Your task to perform on an android device: Open settings Image 0: 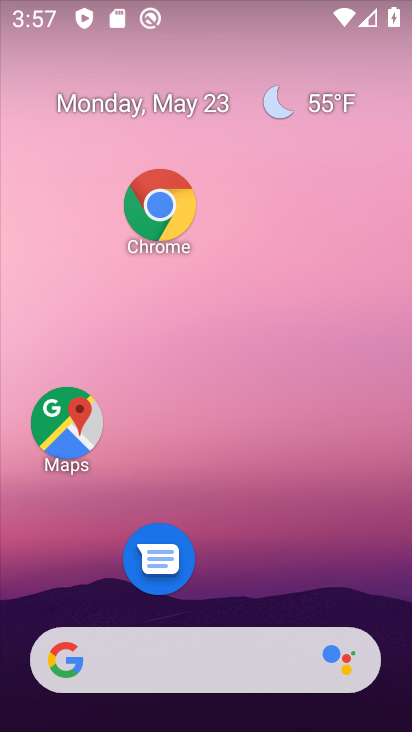
Step 0: drag from (286, 660) to (185, 2)
Your task to perform on an android device: Open settings Image 1: 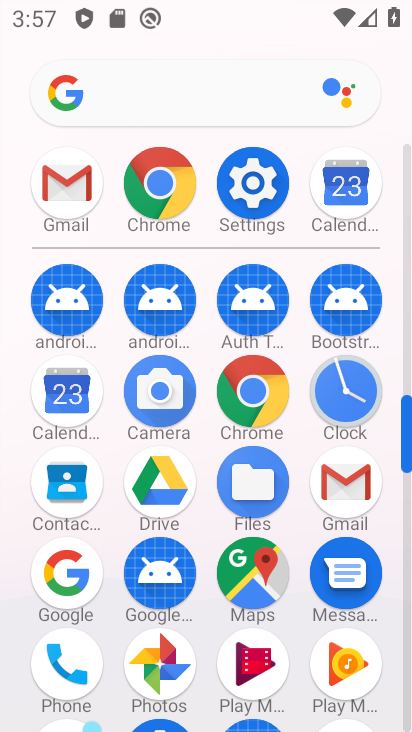
Step 1: click (250, 177)
Your task to perform on an android device: Open settings Image 2: 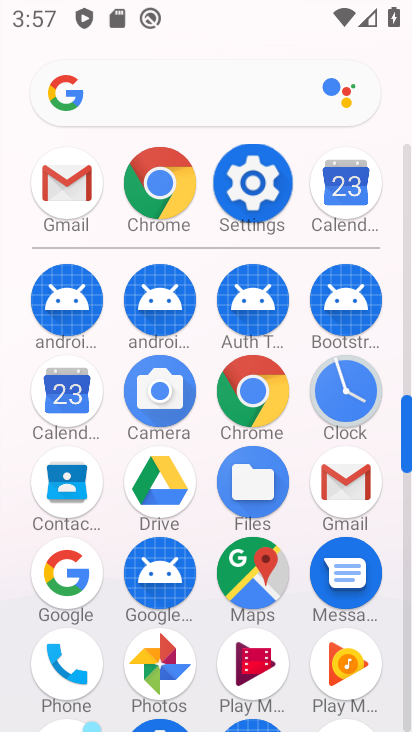
Step 2: click (251, 176)
Your task to perform on an android device: Open settings Image 3: 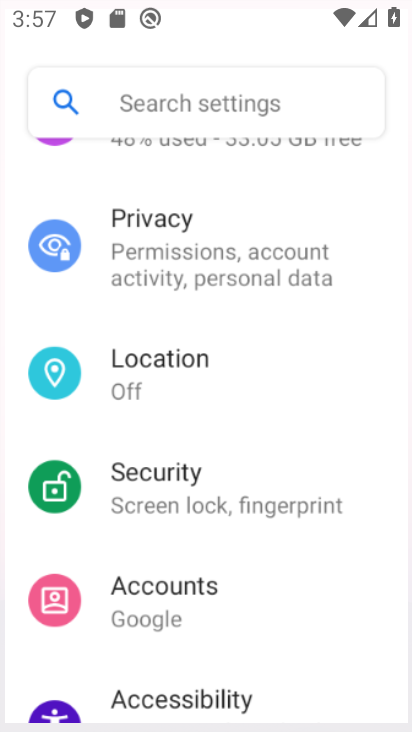
Step 3: click (252, 176)
Your task to perform on an android device: Open settings Image 4: 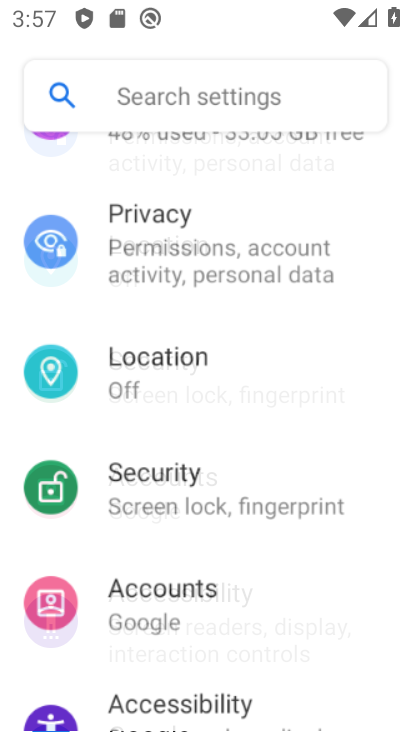
Step 4: click (252, 176)
Your task to perform on an android device: Open settings Image 5: 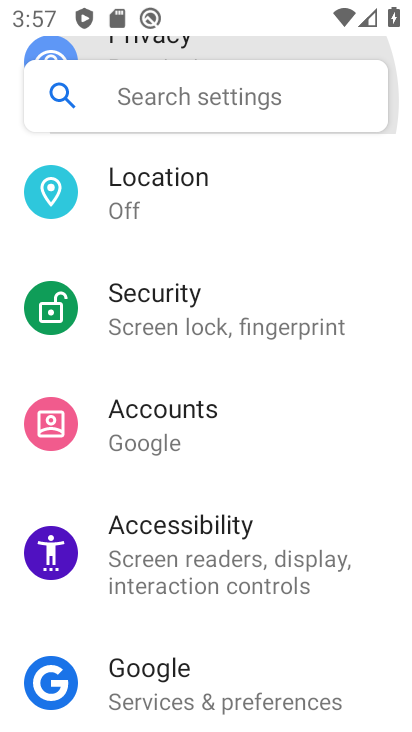
Step 5: click (253, 176)
Your task to perform on an android device: Open settings Image 6: 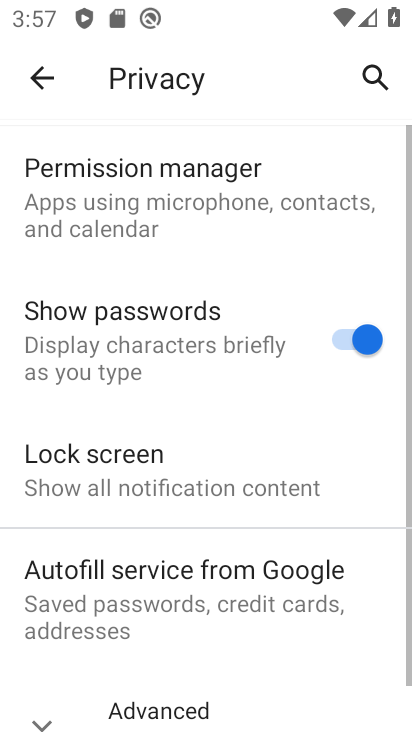
Step 6: task complete